Your task to perform on an android device: stop showing notifications on the lock screen Image 0: 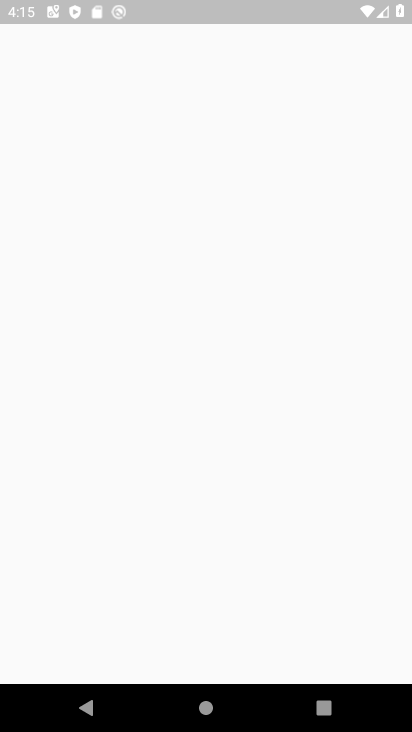
Step 0: press back button
Your task to perform on an android device: stop showing notifications on the lock screen Image 1: 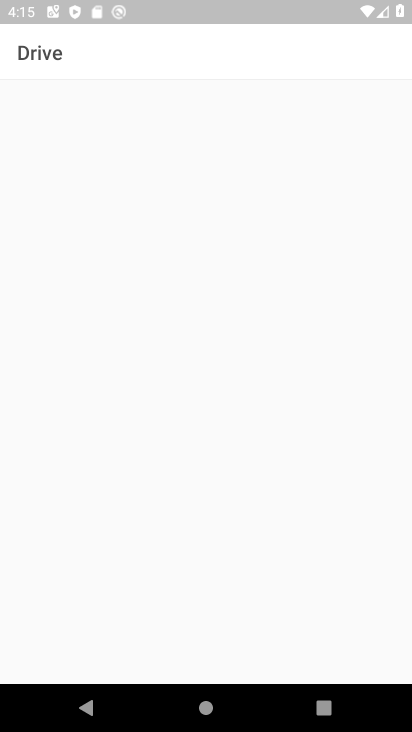
Step 1: press home button
Your task to perform on an android device: stop showing notifications on the lock screen Image 2: 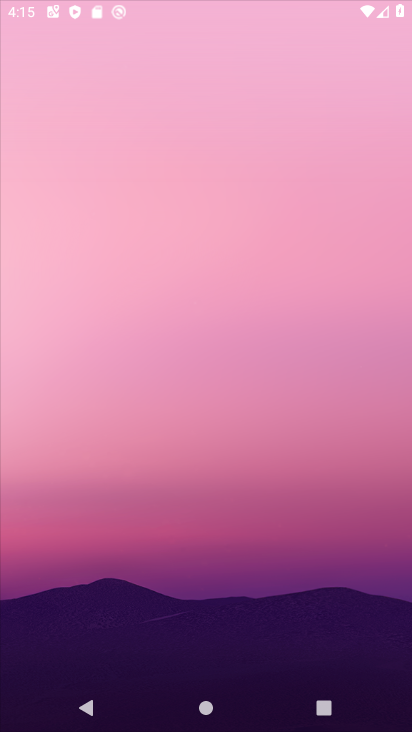
Step 2: drag from (159, 727) to (160, 224)
Your task to perform on an android device: stop showing notifications on the lock screen Image 3: 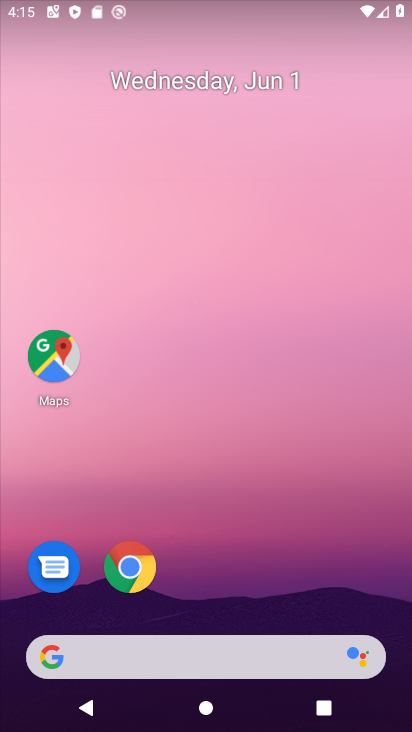
Step 3: drag from (141, 726) to (112, 157)
Your task to perform on an android device: stop showing notifications on the lock screen Image 4: 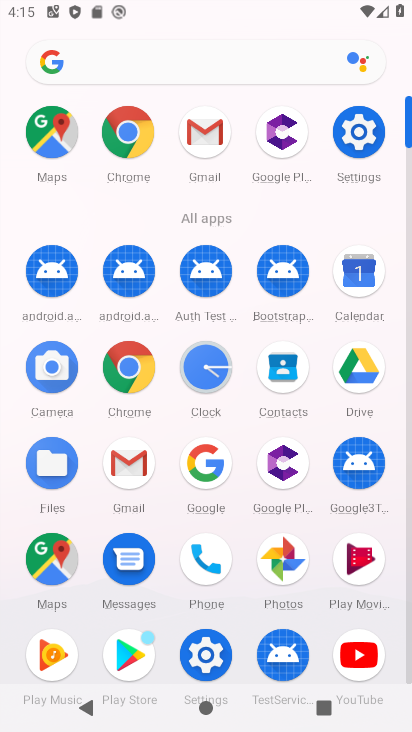
Step 4: click (218, 666)
Your task to perform on an android device: stop showing notifications on the lock screen Image 5: 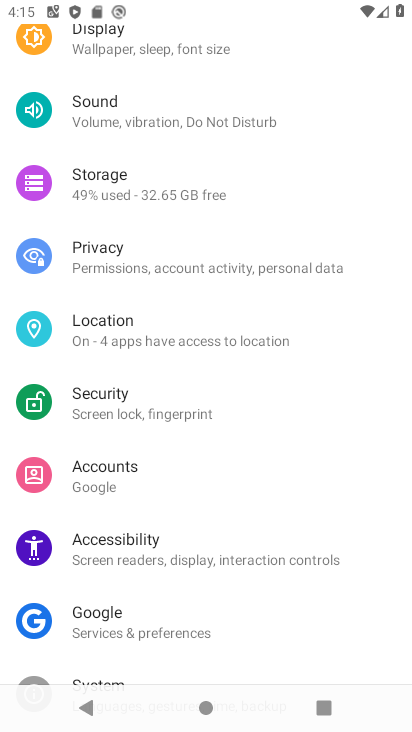
Step 5: drag from (139, 86) to (176, 450)
Your task to perform on an android device: stop showing notifications on the lock screen Image 6: 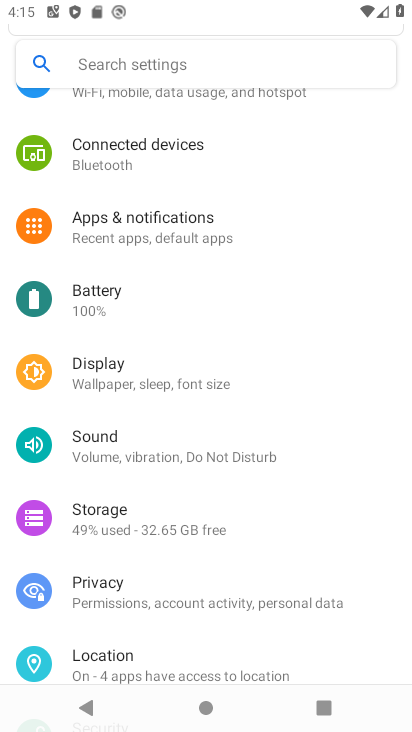
Step 6: click (141, 233)
Your task to perform on an android device: stop showing notifications on the lock screen Image 7: 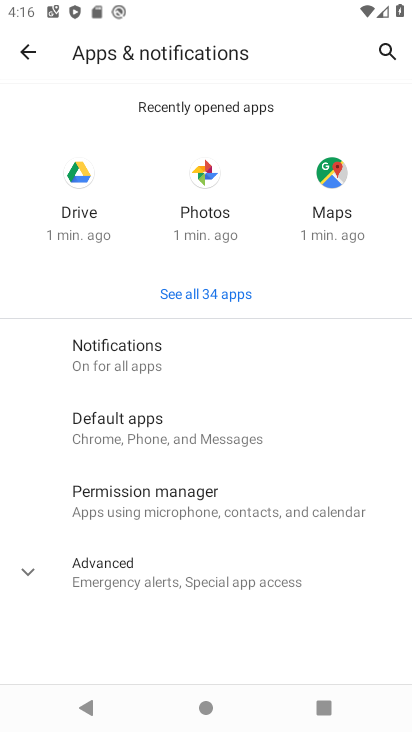
Step 7: click (138, 362)
Your task to perform on an android device: stop showing notifications on the lock screen Image 8: 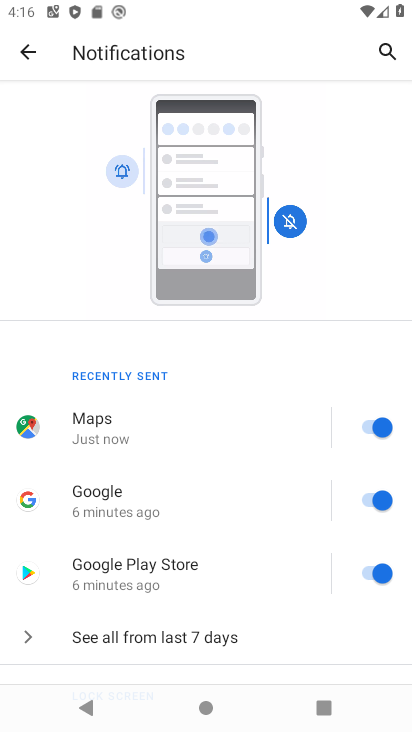
Step 8: drag from (245, 639) to (276, 286)
Your task to perform on an android device: stop showing notifications on the lock screen Image 9: 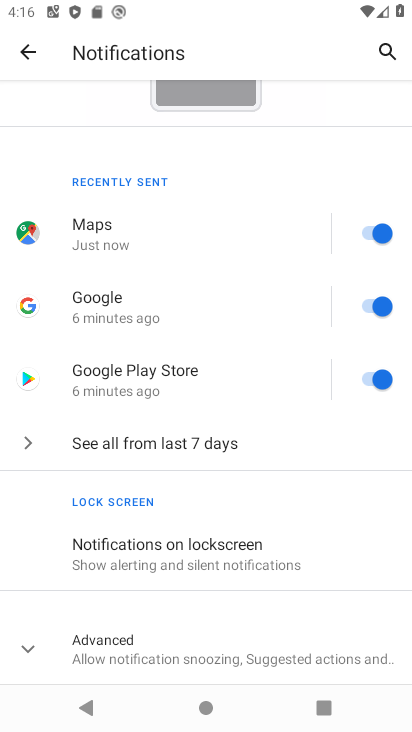
Step 9: click (168, 554)
Your task to perform on an android device: stop showing notifications on the lock screen Image 10: 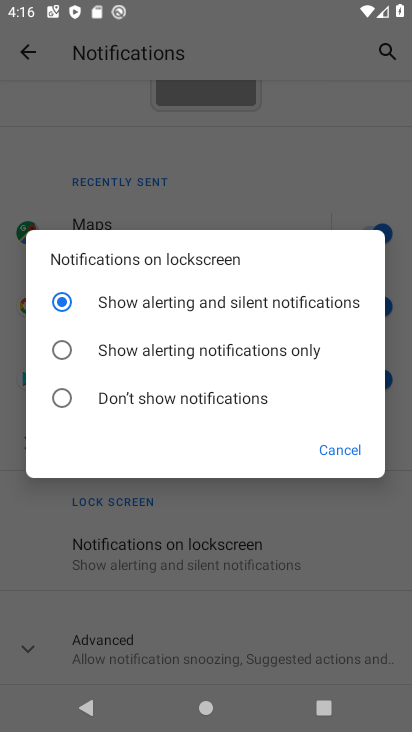
Step 10: task complete